Your task to perform on an android device: toggle sleep mode Image 0: 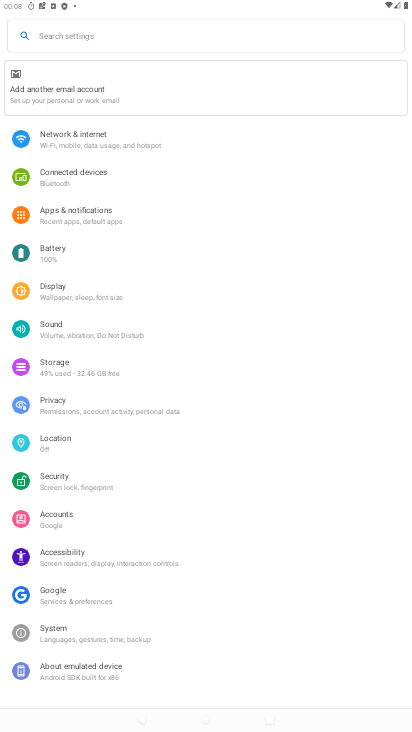
Step 0: click (113, 33)
Your task to perform on an android device: toggle sleep mode Image 1: 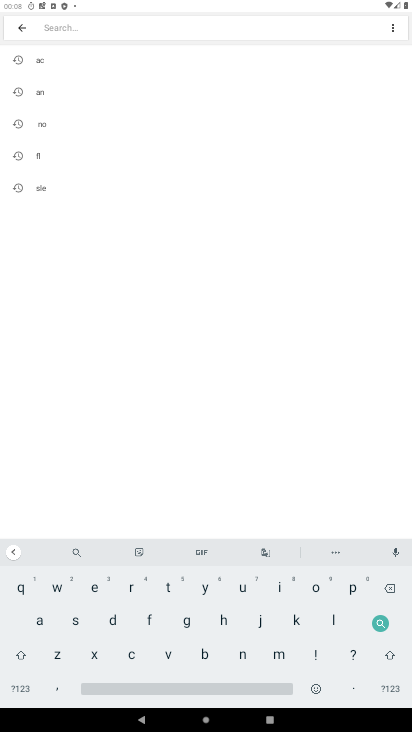
Step 1: click (59, 189)
Your task to perform on an android device: toggle sleep mode Image 2: 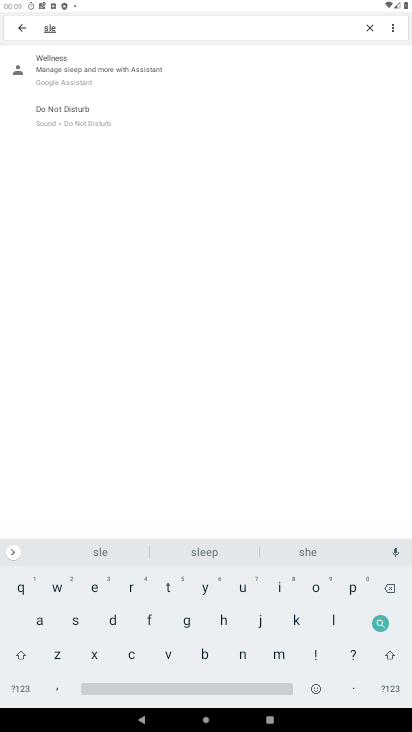
Step 2: click (70, 112)
Your task to perform on an android device: toggle sleep mode Image 3: 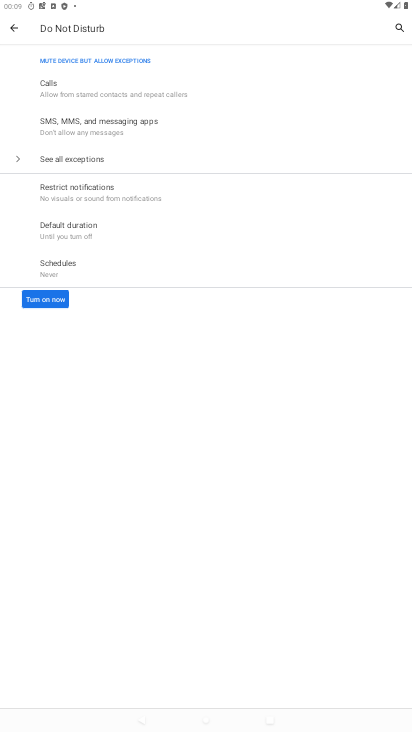
Step 3: task complete